Your task to perform on an android device: set an alarm Image 0: 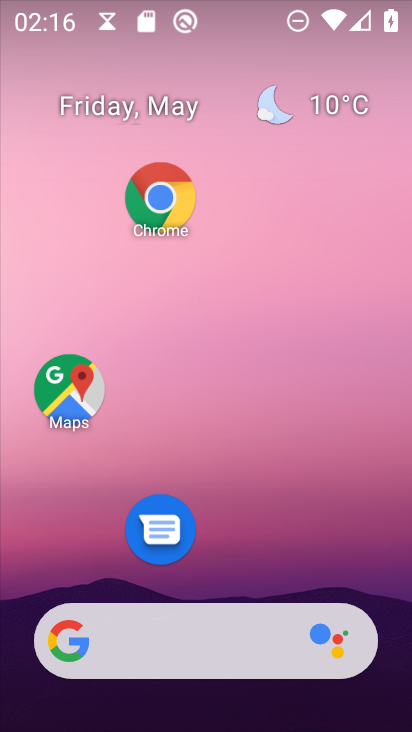
Step 0: drag from (236, 563) to (240, 225)
Your task to perform on an android device: set an alarm Image 1: 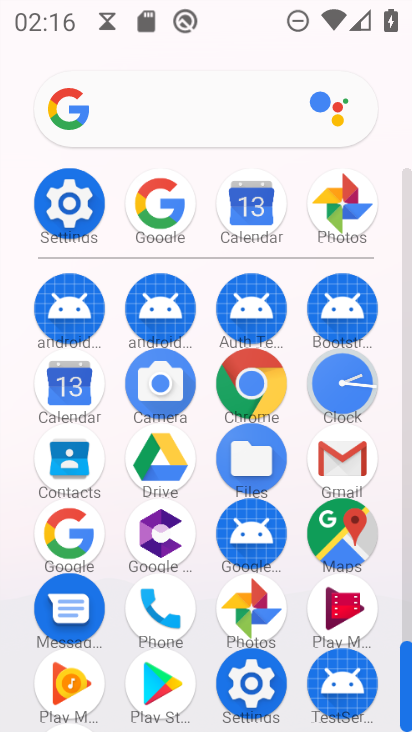
Step 1: click (362, 374)
Your task to perform on an android device: set an alarm Image 2: 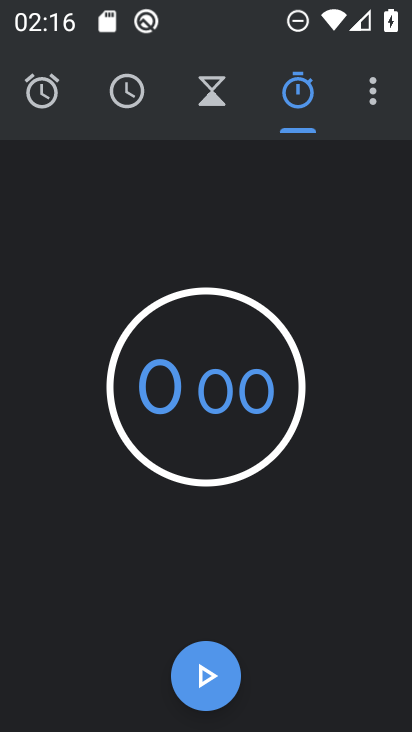
Step 2: click (56, 78)
Your task to perform on an android device: set an alarm Image 3: 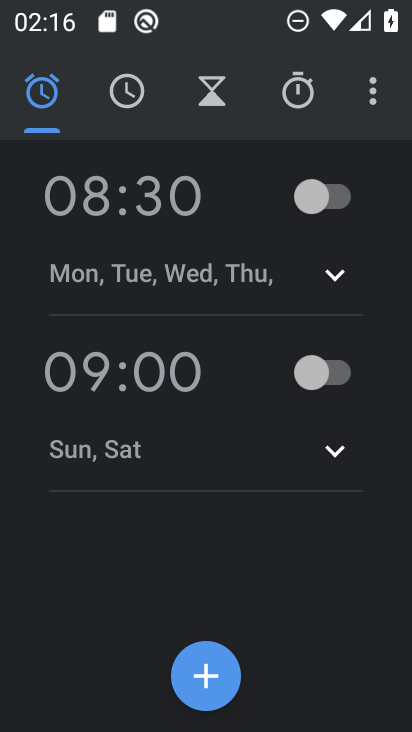
Step 3: click (334, 217)
Your task to perform on an android device: set an alarm Image 4: 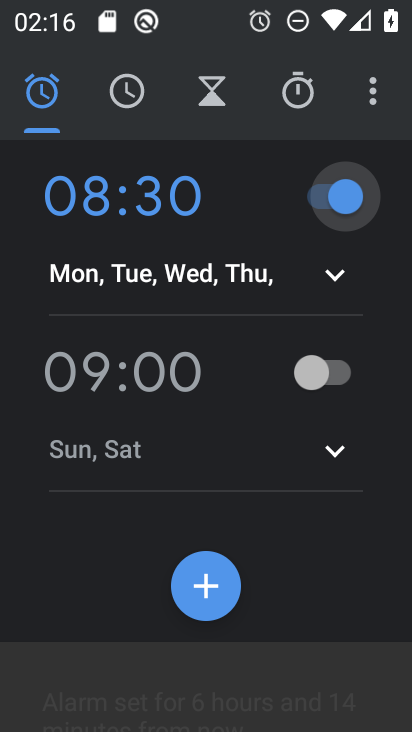
Step 4: click (323, 271)
Your task to perform on an android device: set an alarm Image 5: 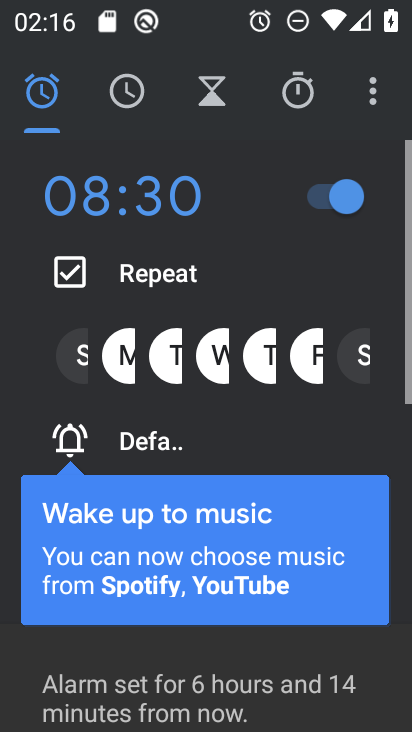
Step 5: click (77, 375)
Your task to perform on an android device: set an alarm Image 6: 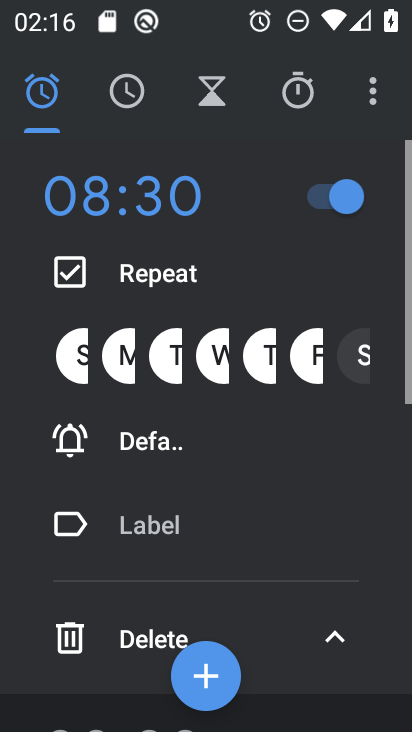
Step 6: click (355, 353)
Your task to perform on an android device: set an alarm Image 7: 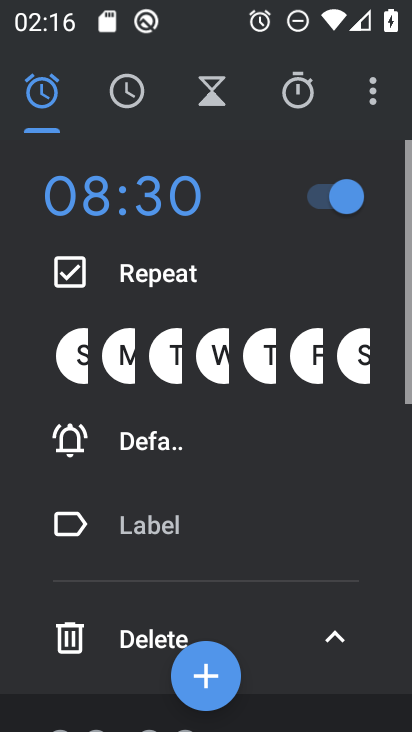
Step 7: click (340, 629)
Your task to perform on an android device: set an alarm Image 8: 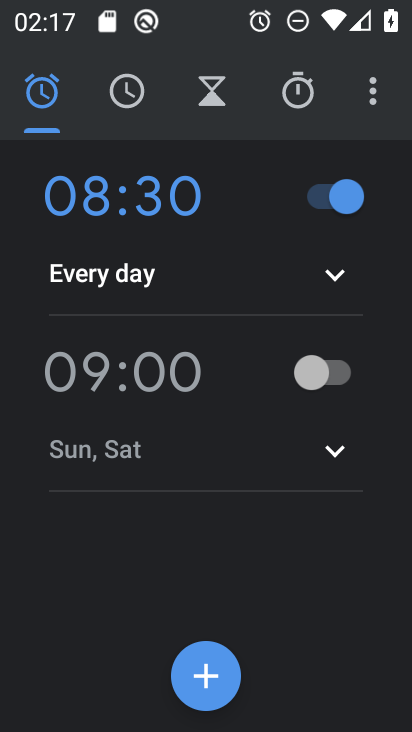
Step 8: task complete